Your task to perform on an android device: Go to display settings Image 0: 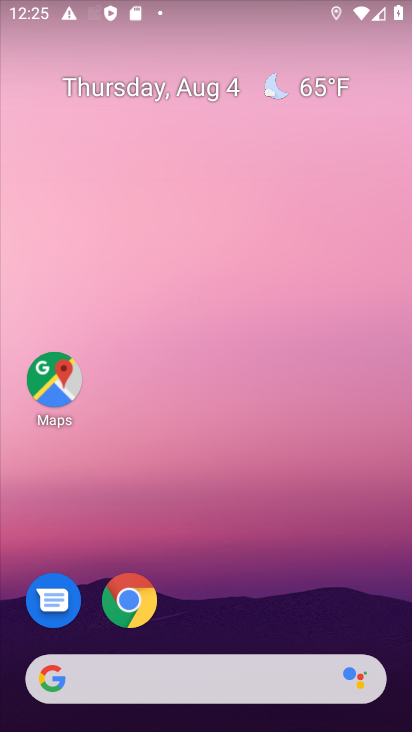
Step 0: drag from (189, 647) to (178, 137)
Your task to perform on an android device: Go to display settings Image 1: 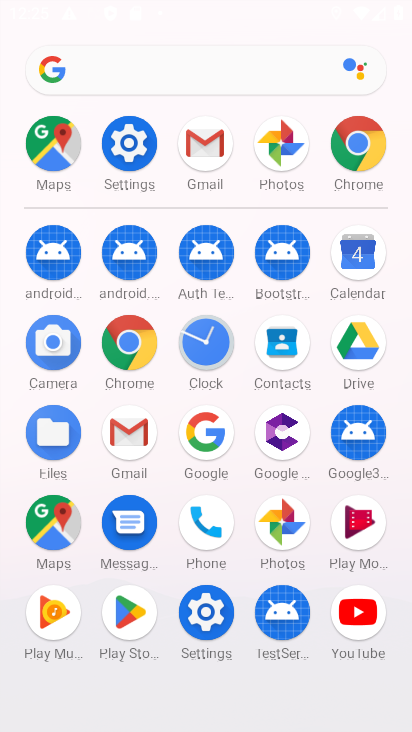
Step 1: click (127, 126)
Your task to perform on an android device: Go to display settings Image 2: 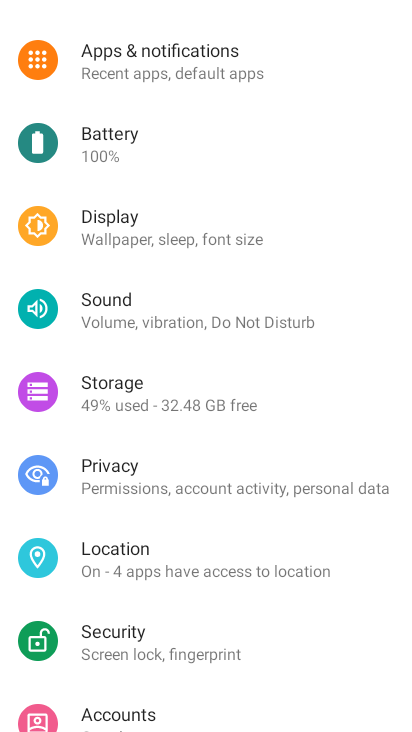
Step 2: click (106, 215)
Your task to perform on an android device: Go to display settings Image 3: 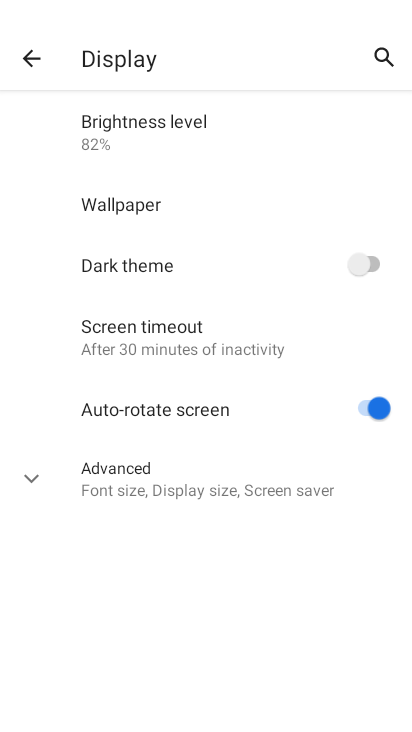
Step 3: click (111, 488)
Your task to perform on an android device: Go to display settings Image 4: 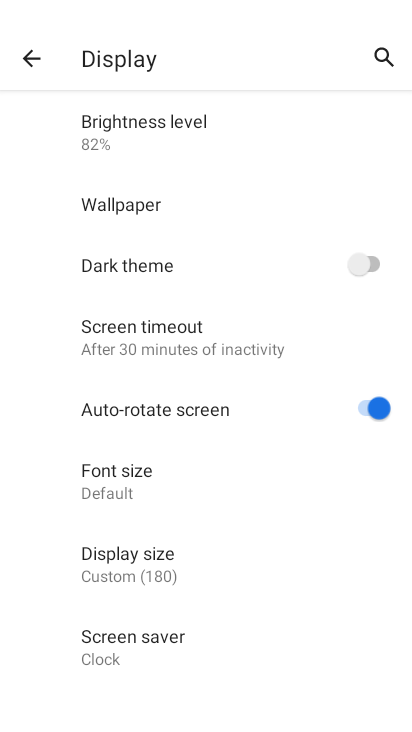
Step 4: task complete